Your task to perform on an android device: install app "Google Play Games" Image 0: 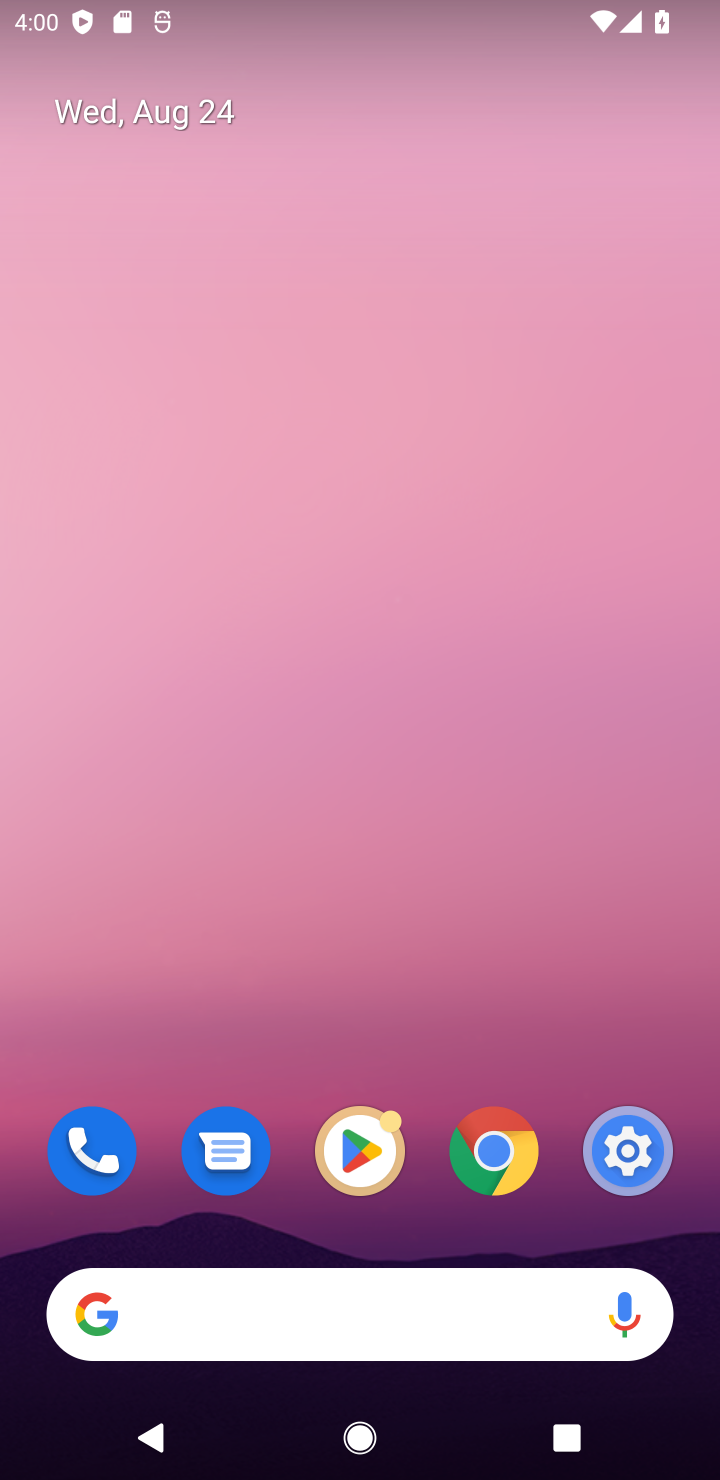
Step 0: click (356, 1143)
Your task to perform on an android device: install app "Google Play Games" Image 1: 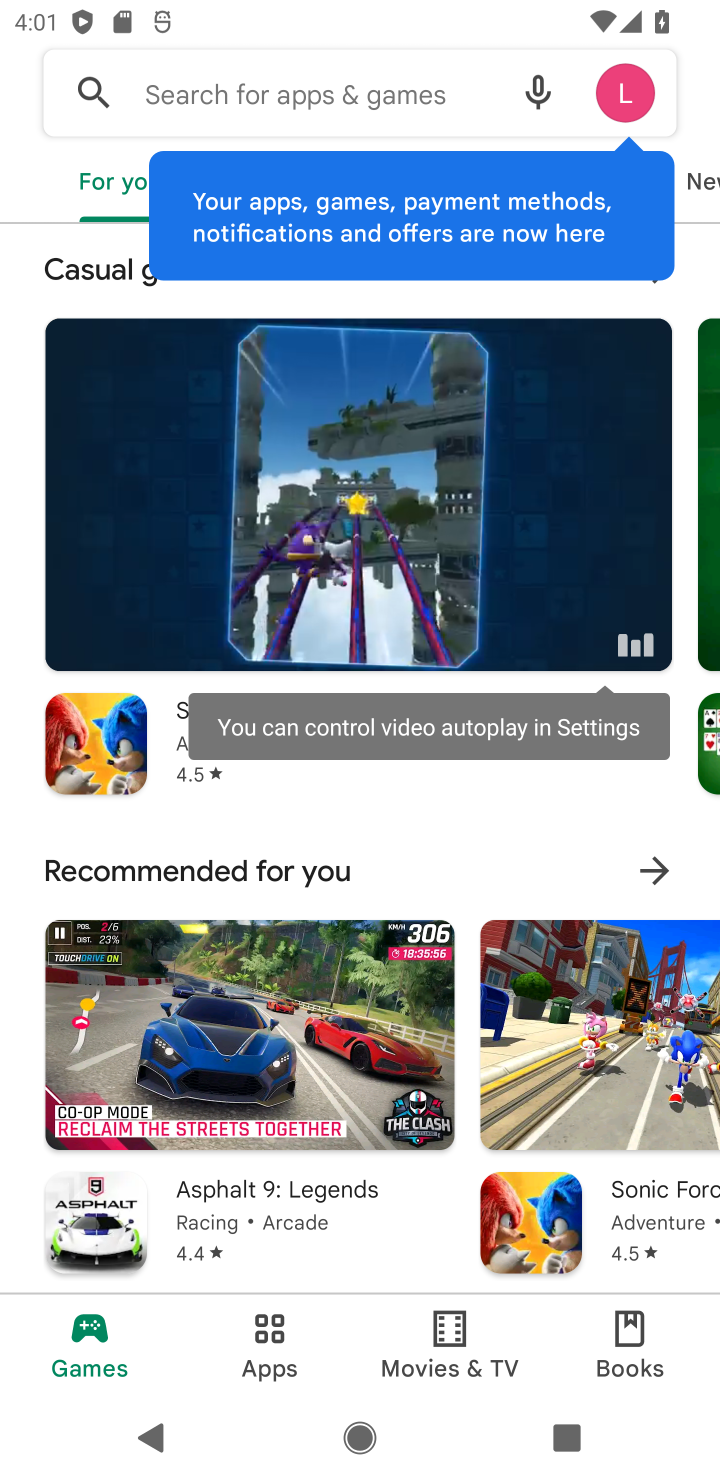
Step 1: click (252, 91)
Your task to perform on an android device: install app "Google Play Games" Image 2: 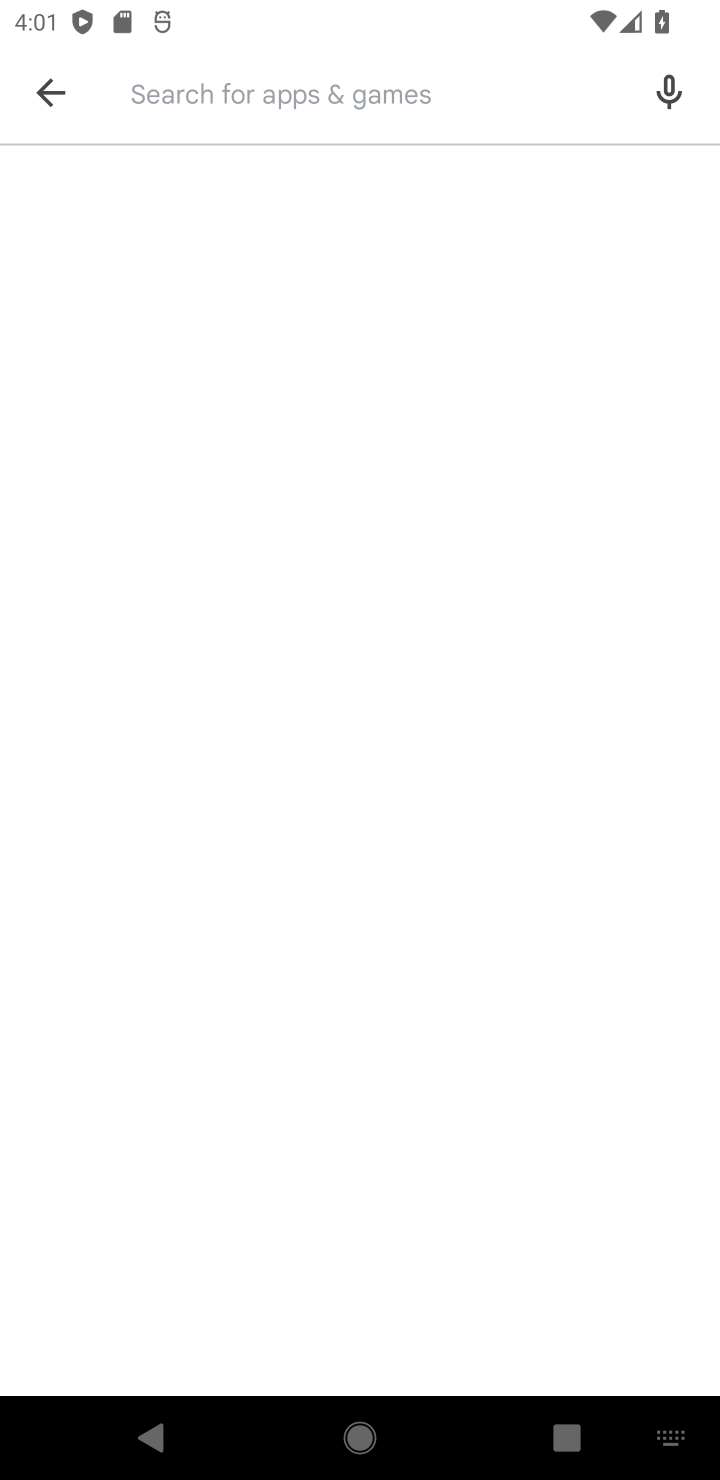
Step 2: type "Google Play Games"
Your task to perform on an android device: install app "Google Play Games" Image 3: 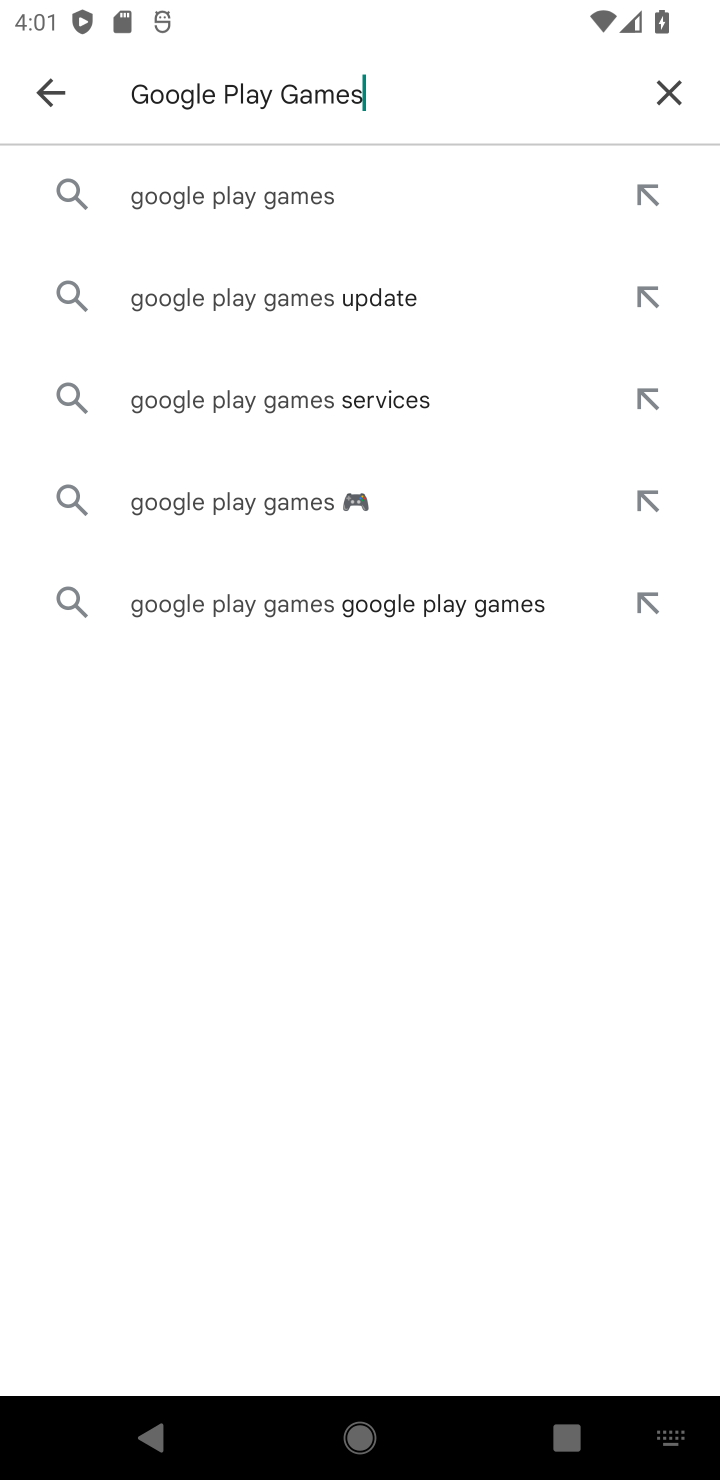
Step 3: click (313, 192)
Your task to perform on an android device: install app "Google Play Games" Image 4: 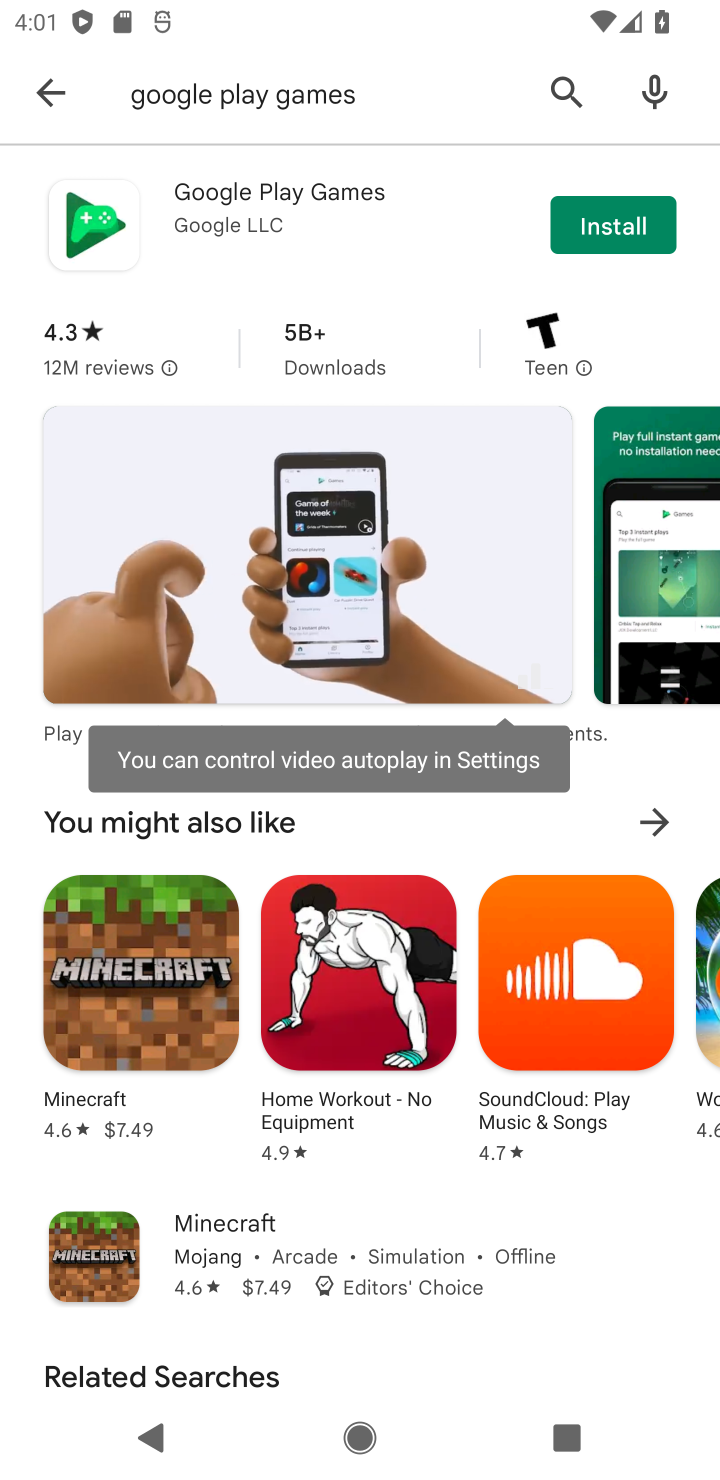
Step 4: click (626, 215)
Your task to perform on an android device: install app "Google Play Games" Image 5: 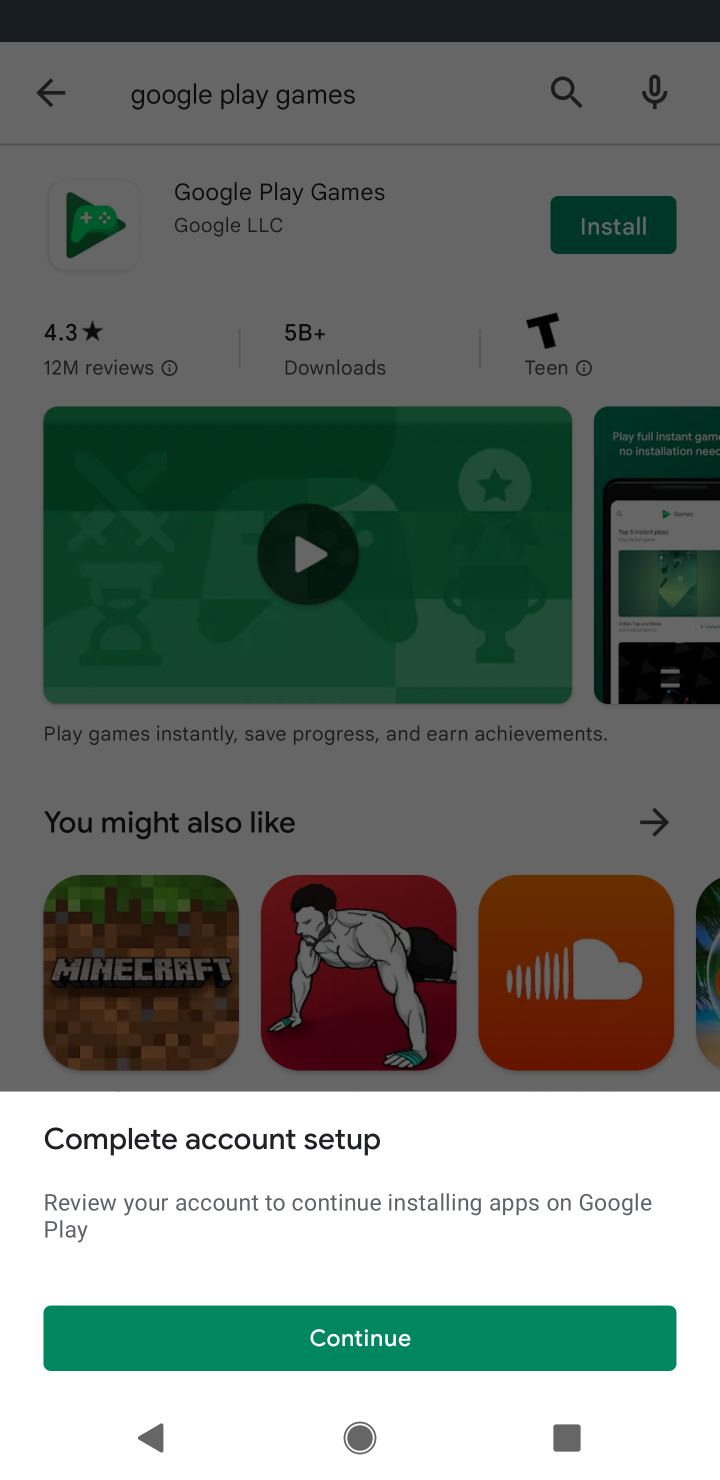
Step 5: click (370, 1336)
Your task to perform on an android device: install app "Google Play Games" Image 6: 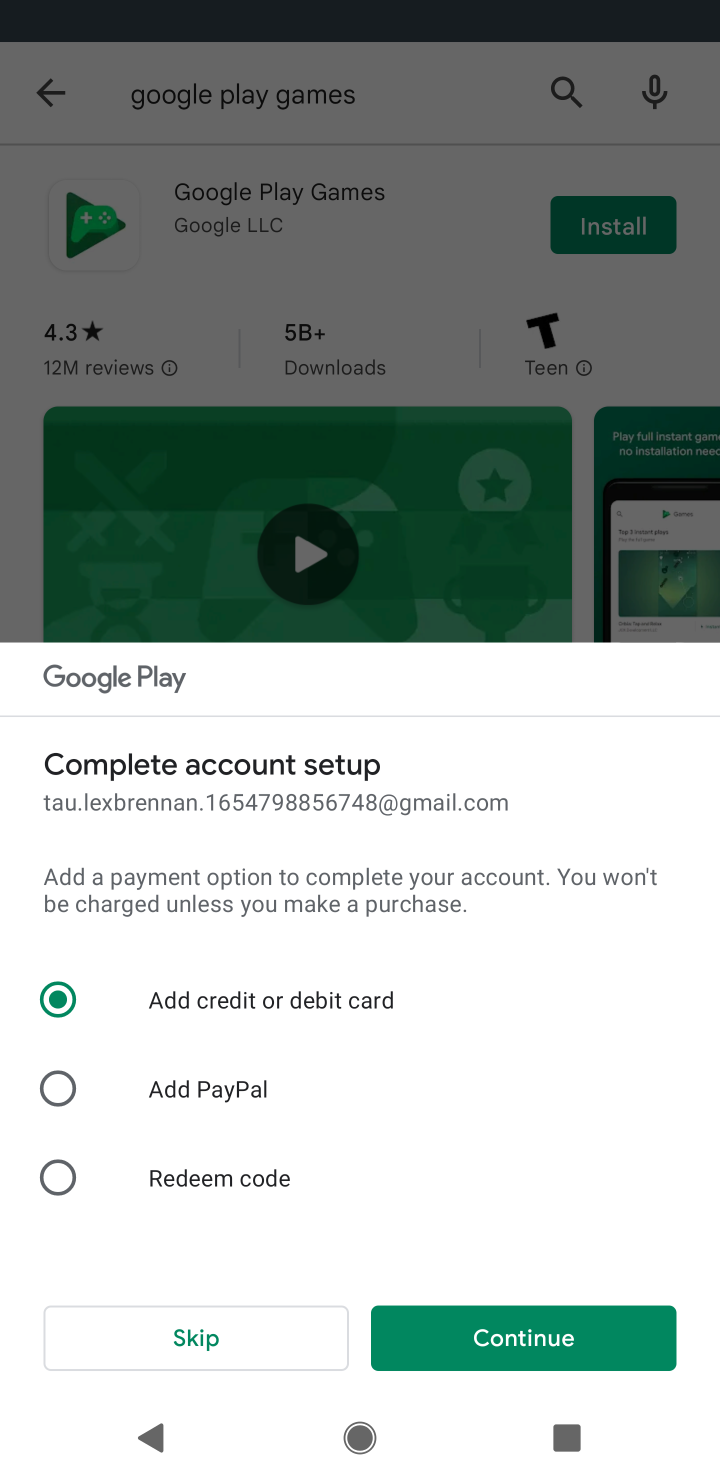
Step 6: click (232, 1351)
Your task to perform on an android device: install app "Google Play Games" Image 7: 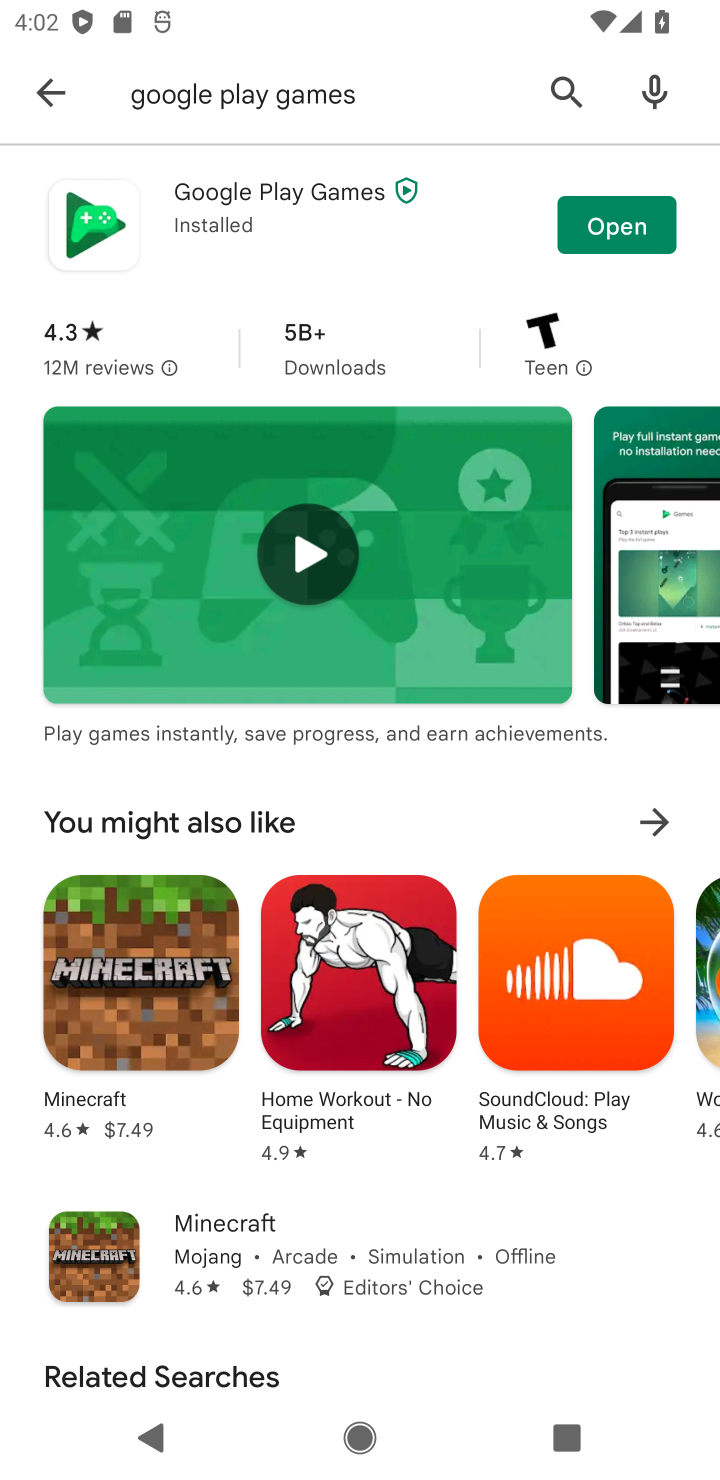
Step 7: task complete